Your task to perform on an android device: add a contact in the contacts app Image 0: 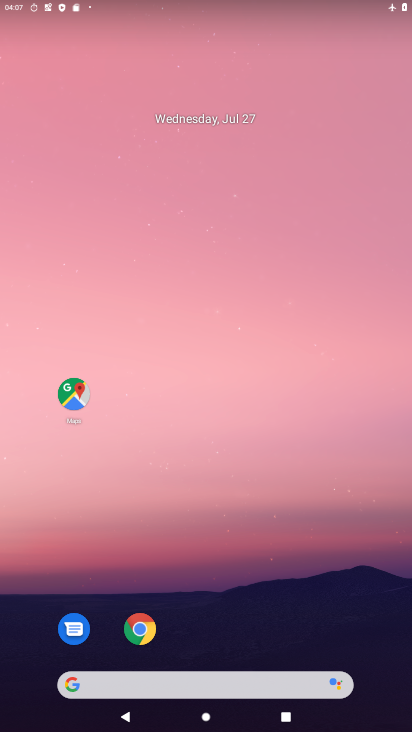
Step 0: drag from (337, 567) to (269, 83)
Your task to perform on an android device: add a contact in the contacts app Image 1: 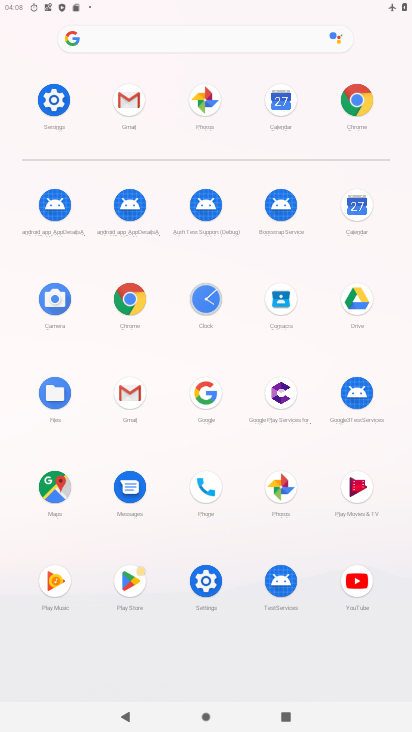
Step 1: click (278, 297)
Your task to perform on an android device: add a contact in the contacts app Image 2: 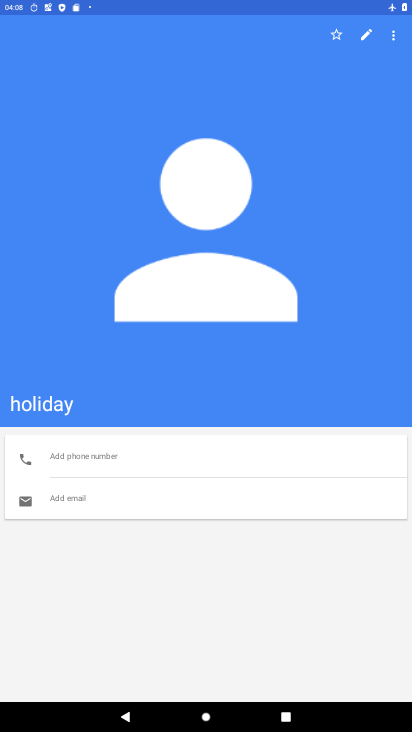
Step 2: press back button
Your task to perform on an android device: add a contact in the contacts app Image 3: 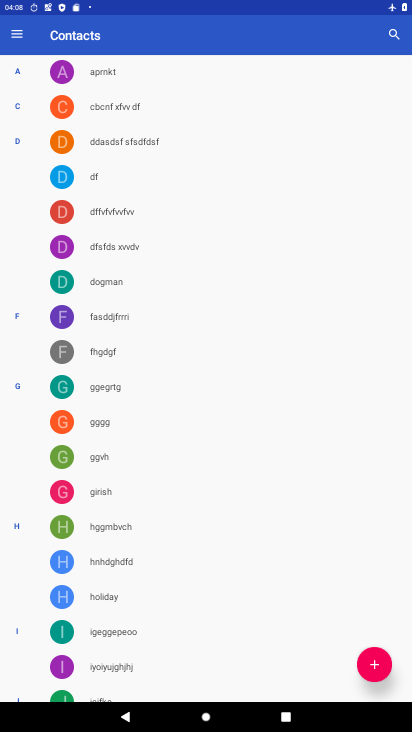
Step 3: click (374, 662)
Your task to perform on an android device: add a contact in the contacts app Image 4: 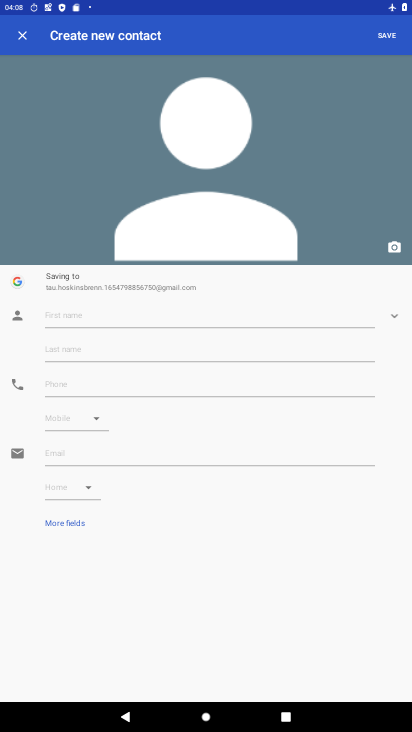
Step 4: click (188, 322)
Your task to perform on an android device: add a contact in the contacts app Image 5: 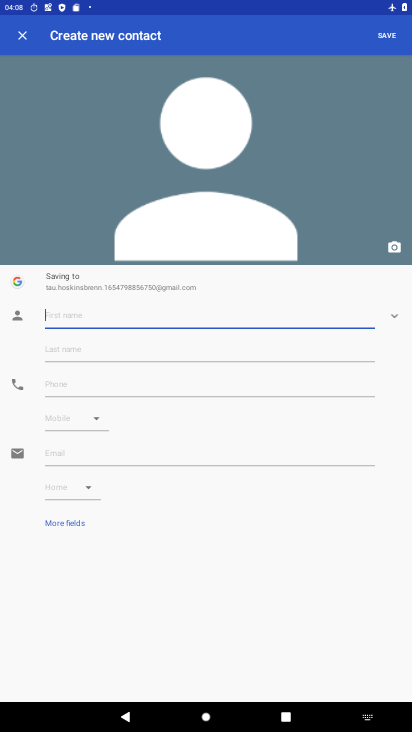
Step 5: type "not happy with appriasal"
Your task to perform on an android device: add a contact in the contacts app Image 6: 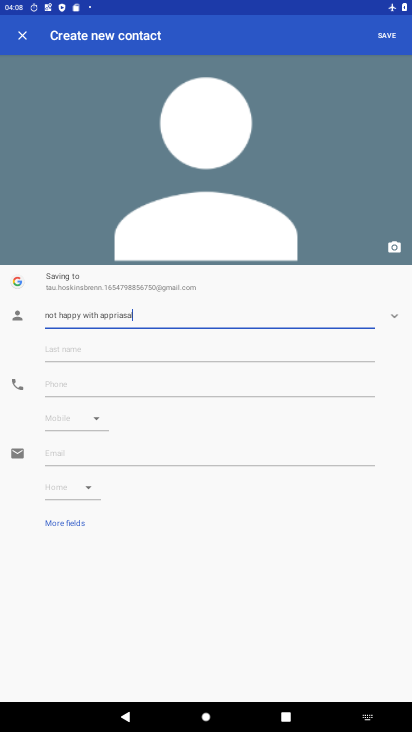
Step 6: click (394, 39)
Your task to perform on an android device: add a contact in the contacts app Image 7: 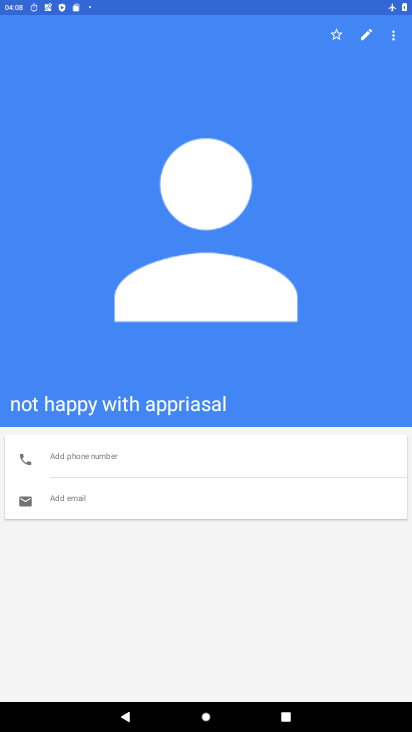
Step 7: task complete